Your task to perform on an android device: toggle priority inbox in the gmail app Image 0: 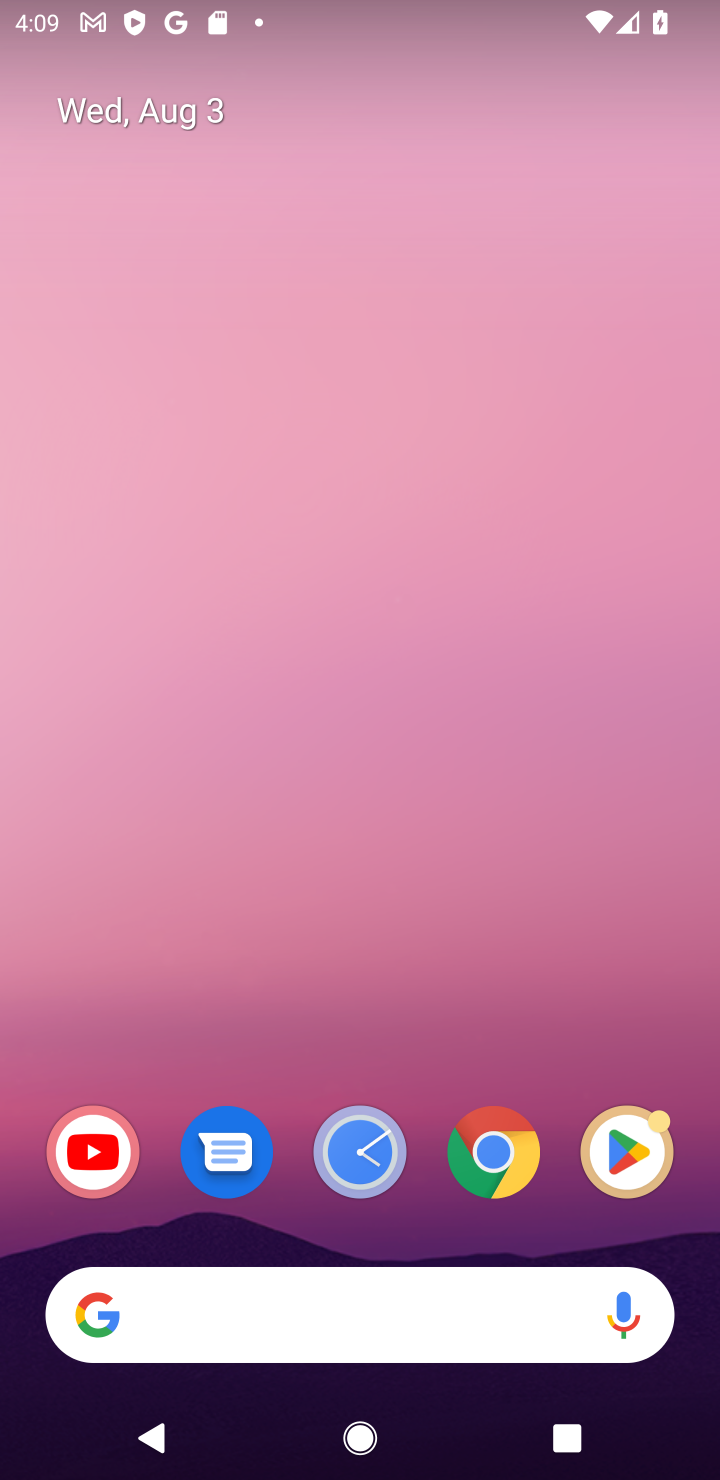
Step 0: drag from (307, 1297) to (393, 385)
Your task to perform on an android device: toggle priority inbox in the gmail app Image 1: 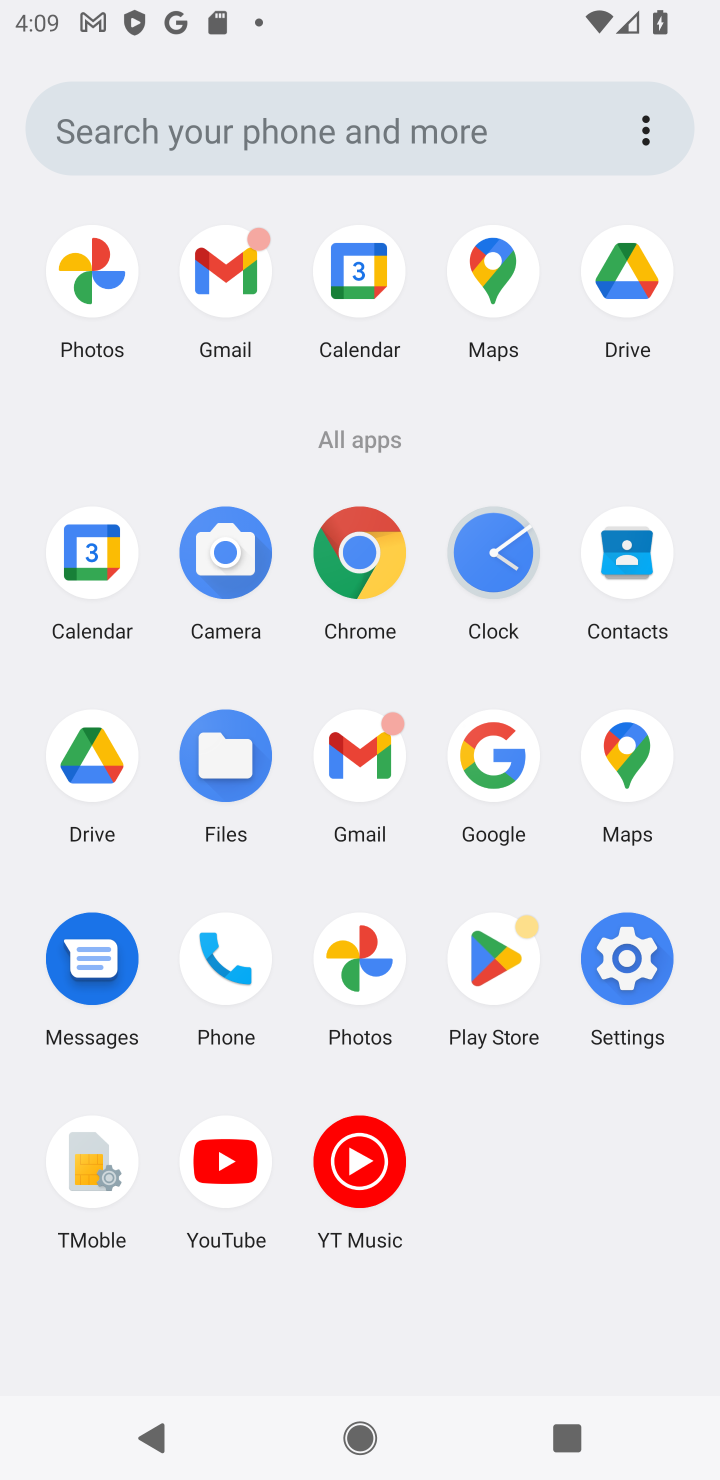
Step 1: click (329, 775)
Your task to perform on an android device: toggle priority inbox in the gmail app Image 2: 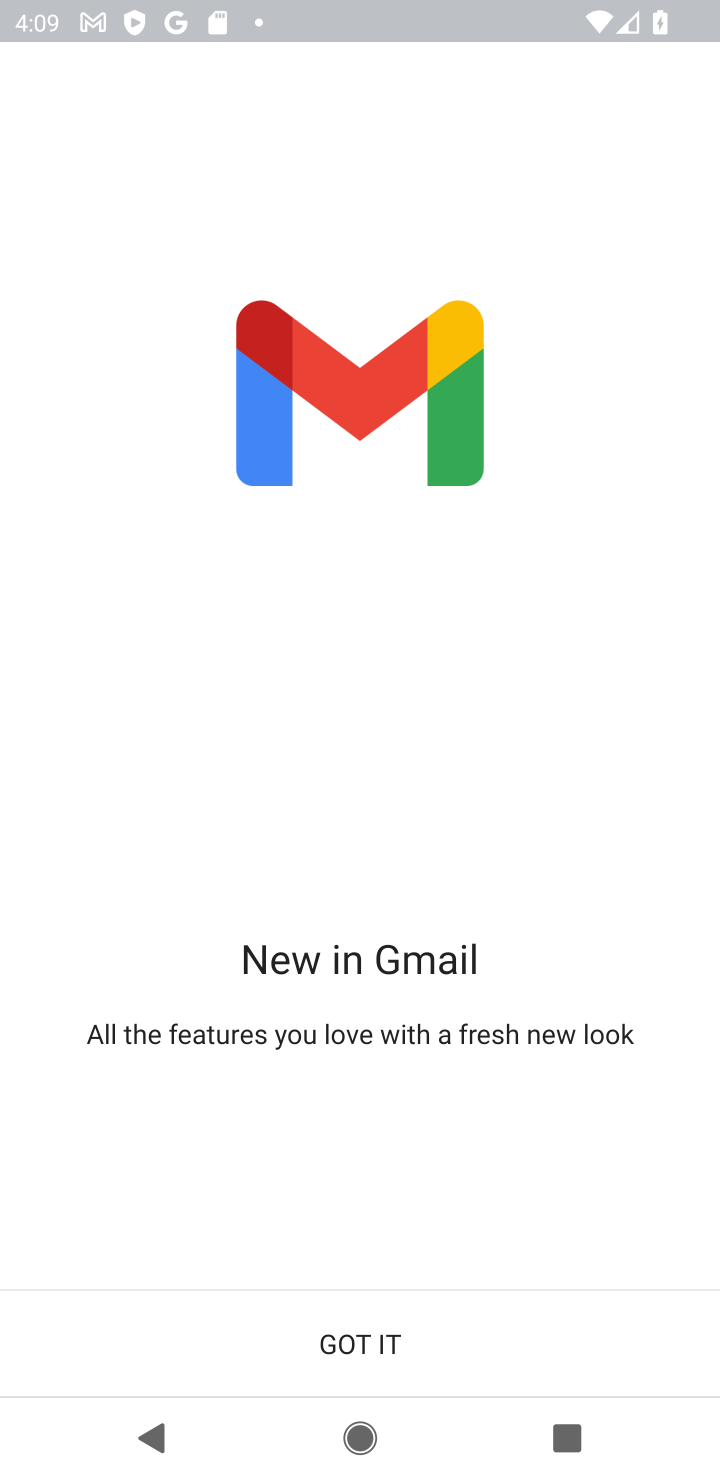
Step 2: click (372, 1348)
Your task to perform on an android device: toggle priority inbox in the gmail app Image 3: 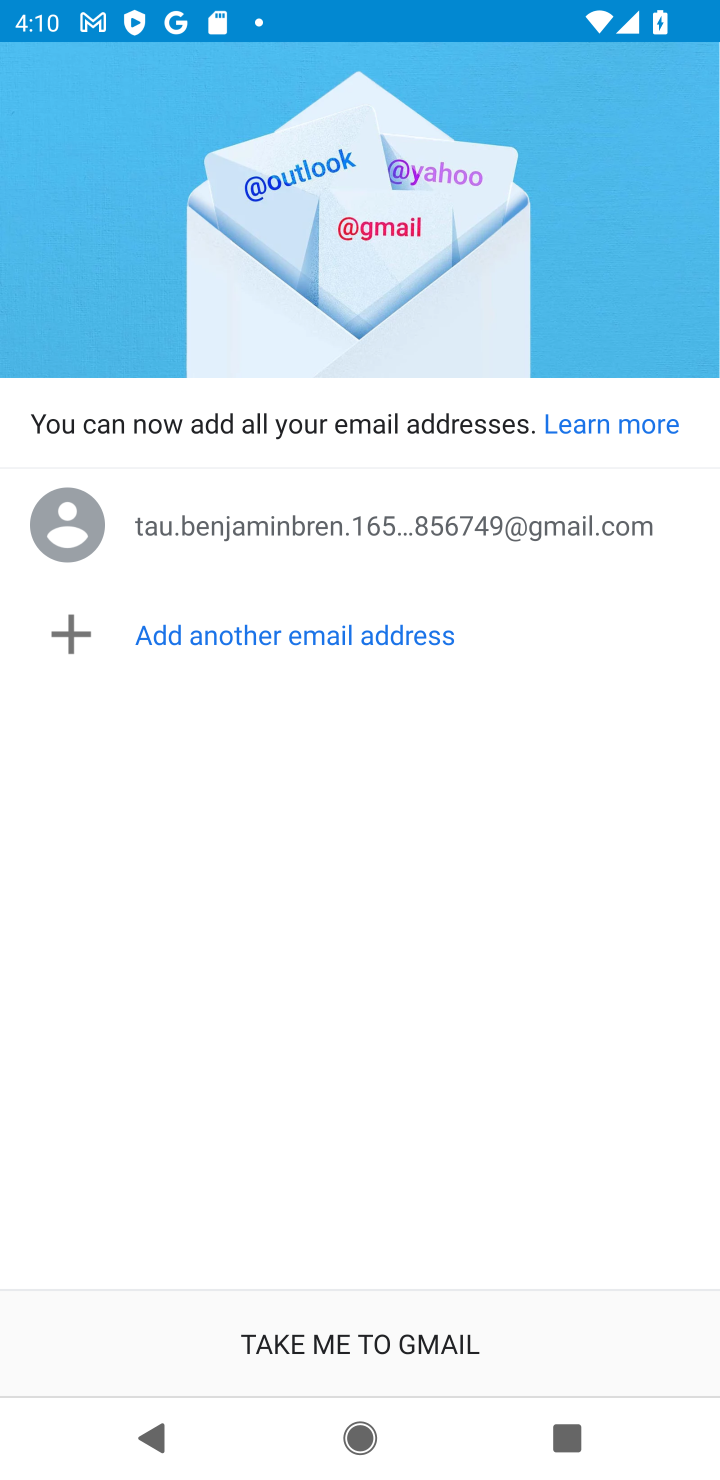
Step 3: press home button
Your task to perform on an android device: toggle priority inbox in the gmail app Image 4: 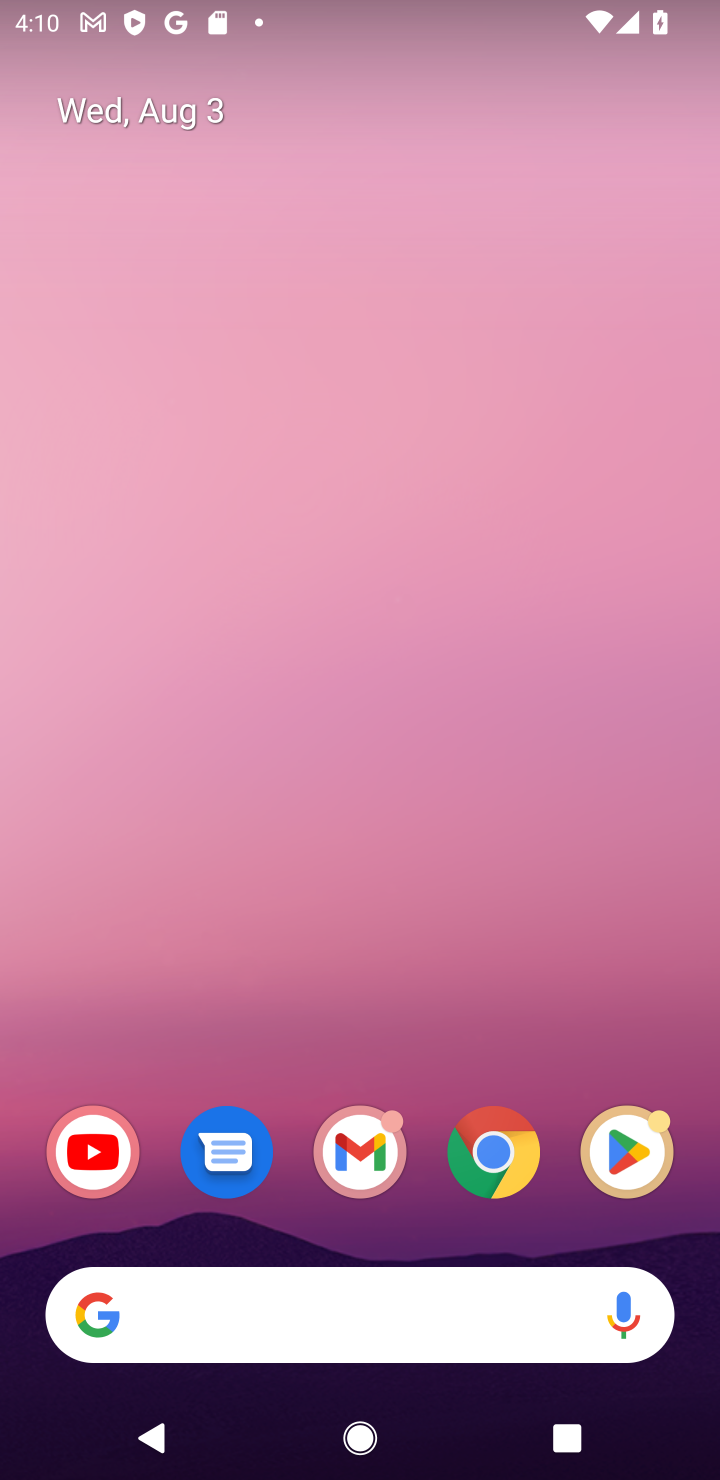
Step 4: click (360, 1184)
Your task to perform on an android device: toggle priority inbox in the gmail app Image 5: 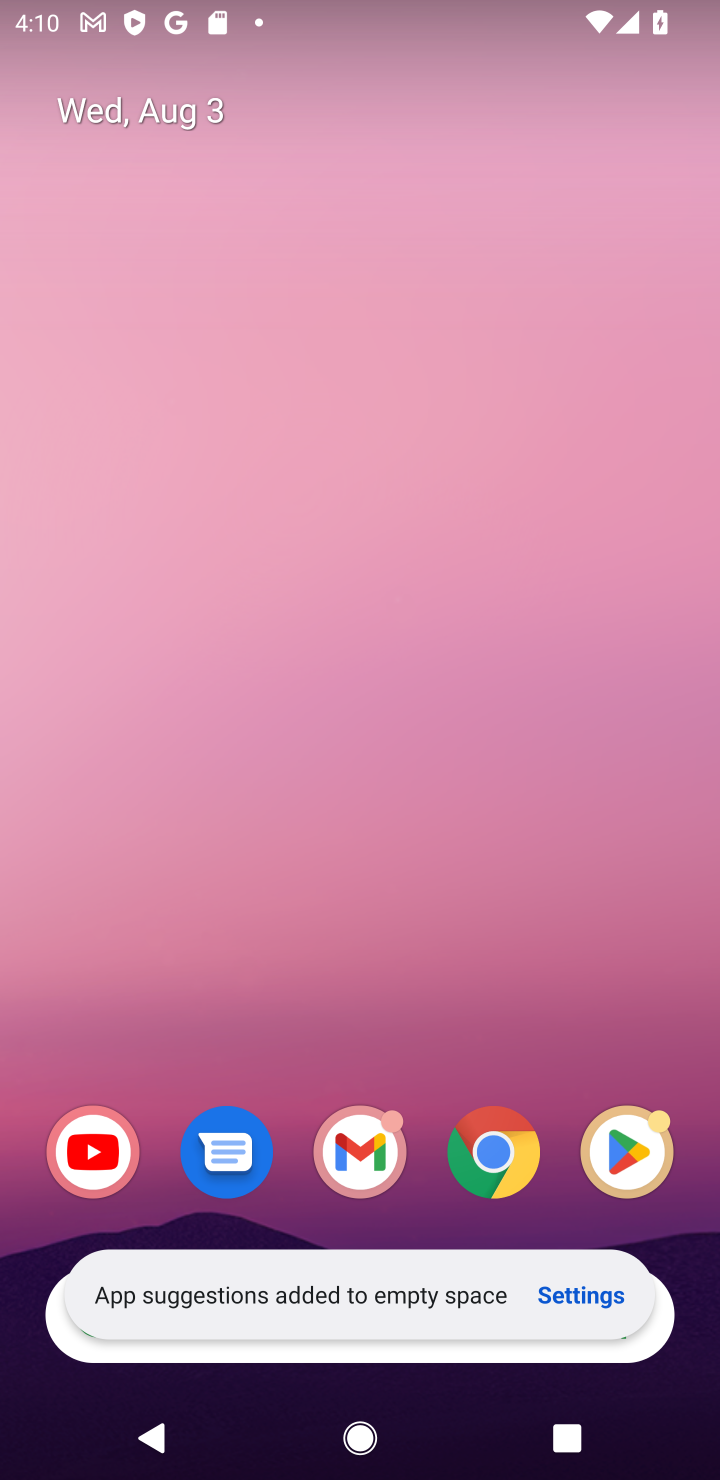
Step 5: click (360, 1184)
Your task to perform on an android device: toggle priority inbox in the gmail app Image 6: 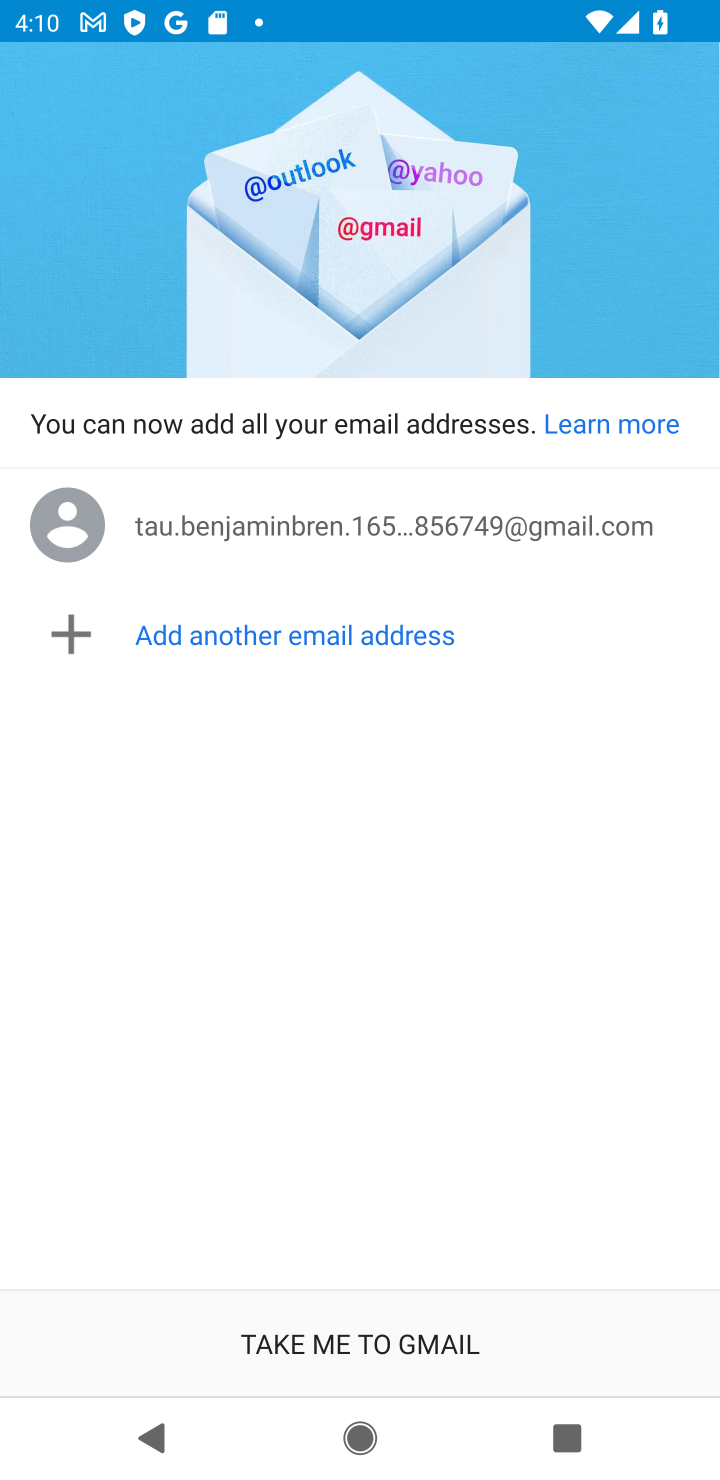
Step 6: drag from (328, 1350) to (399, 1350)
Your task to perform on an android device: toggle priority inbox in the gmail app Image 7: 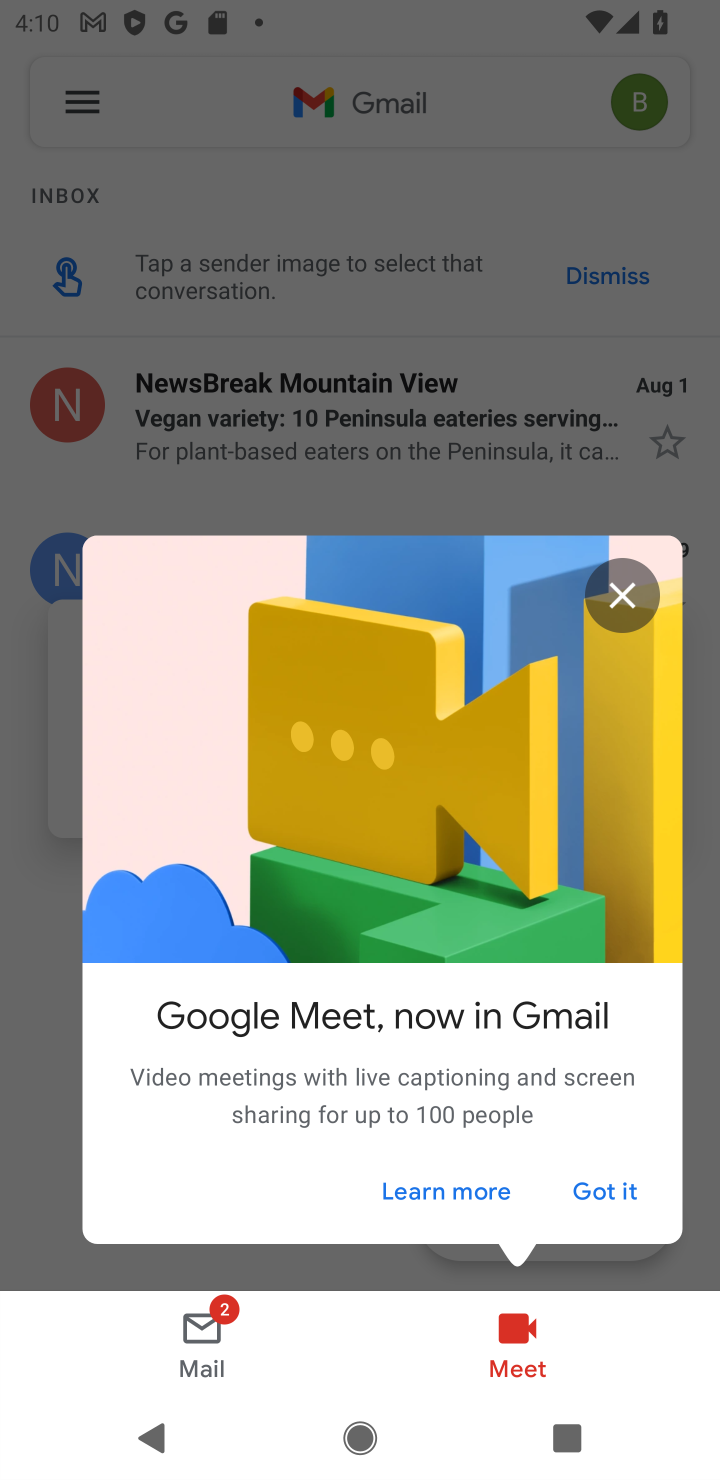
Step 7: click (637, 587)
Your task to perform on an android device: toggle priority inbox in the gmail app Image 8: 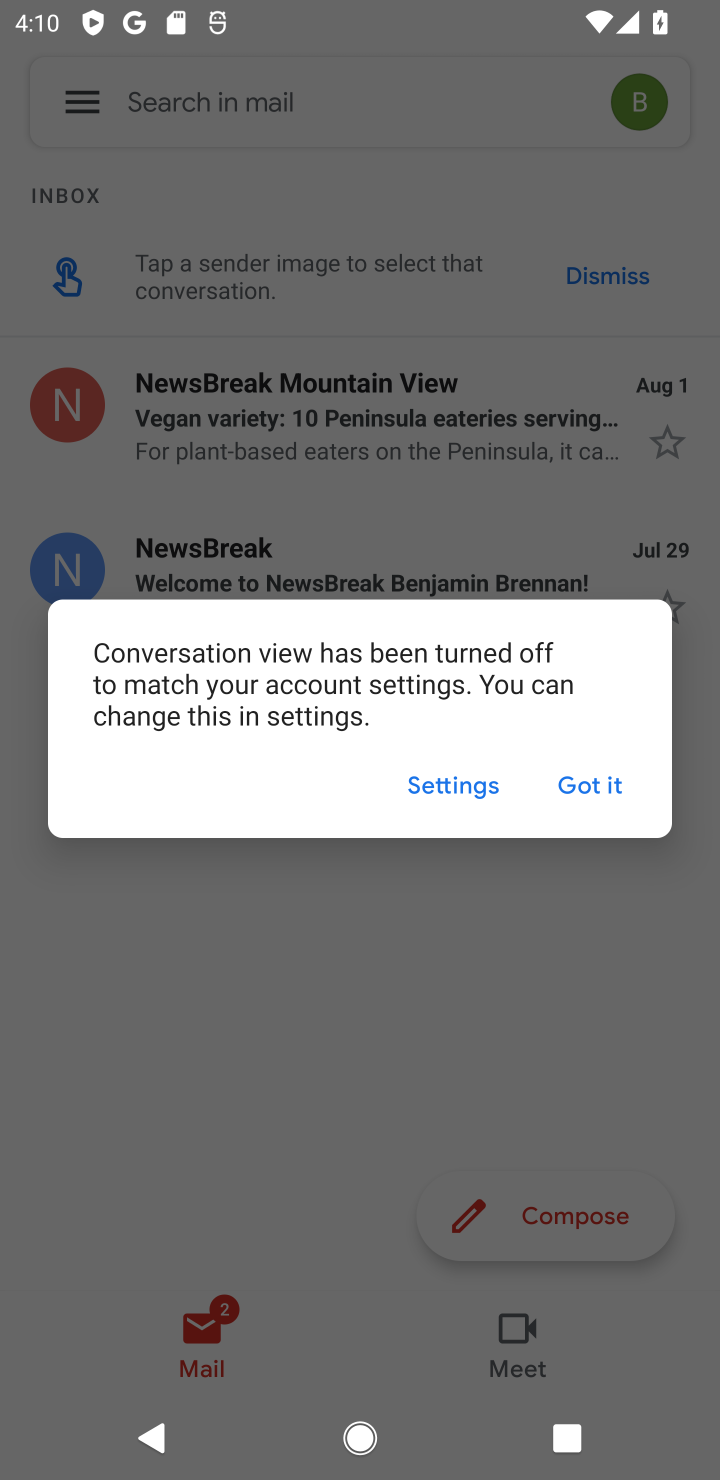
Step 8: click (599, 790)
Your task to perform on an android device: toggle priority inbox in the gmail app Image 9: 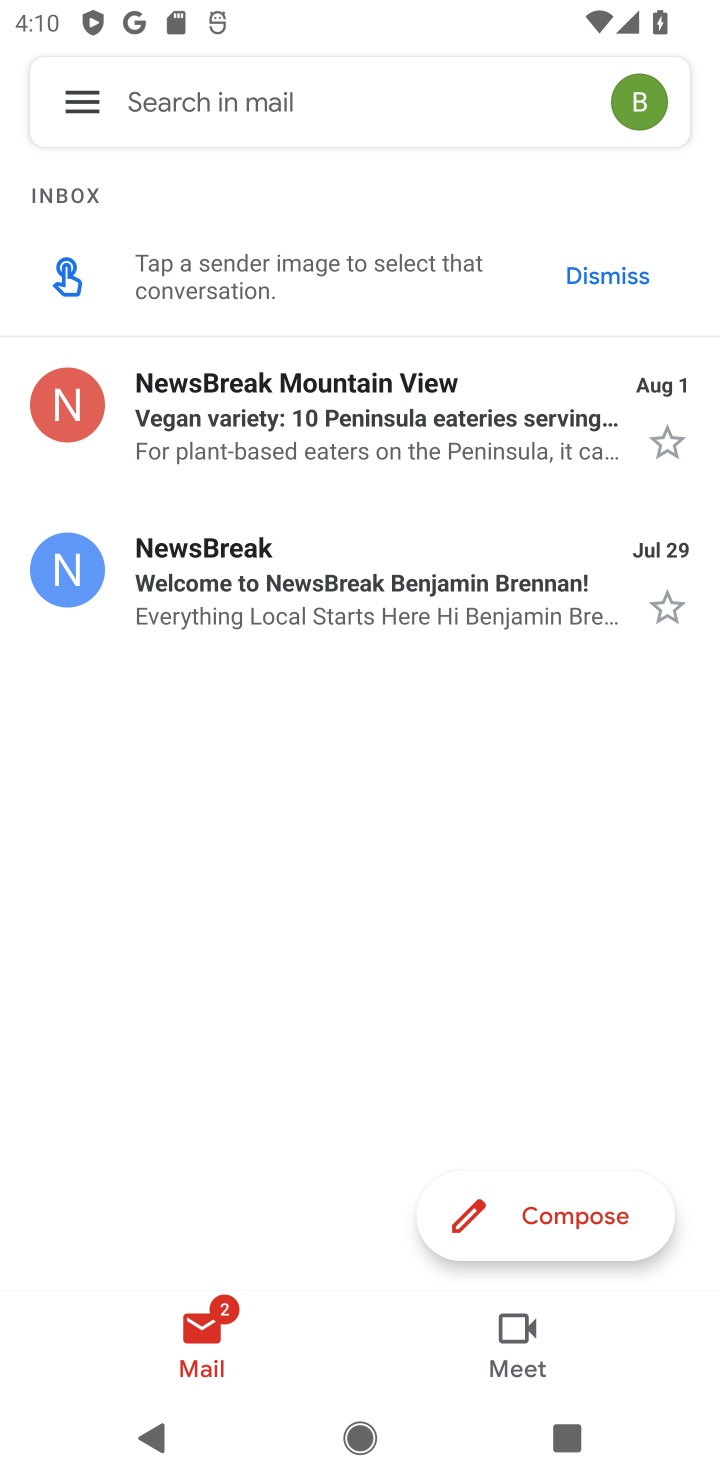
Step 9: click (101, 104)
Your task to perform on an android device: toggle priority inbox in the gmail app Image 10: 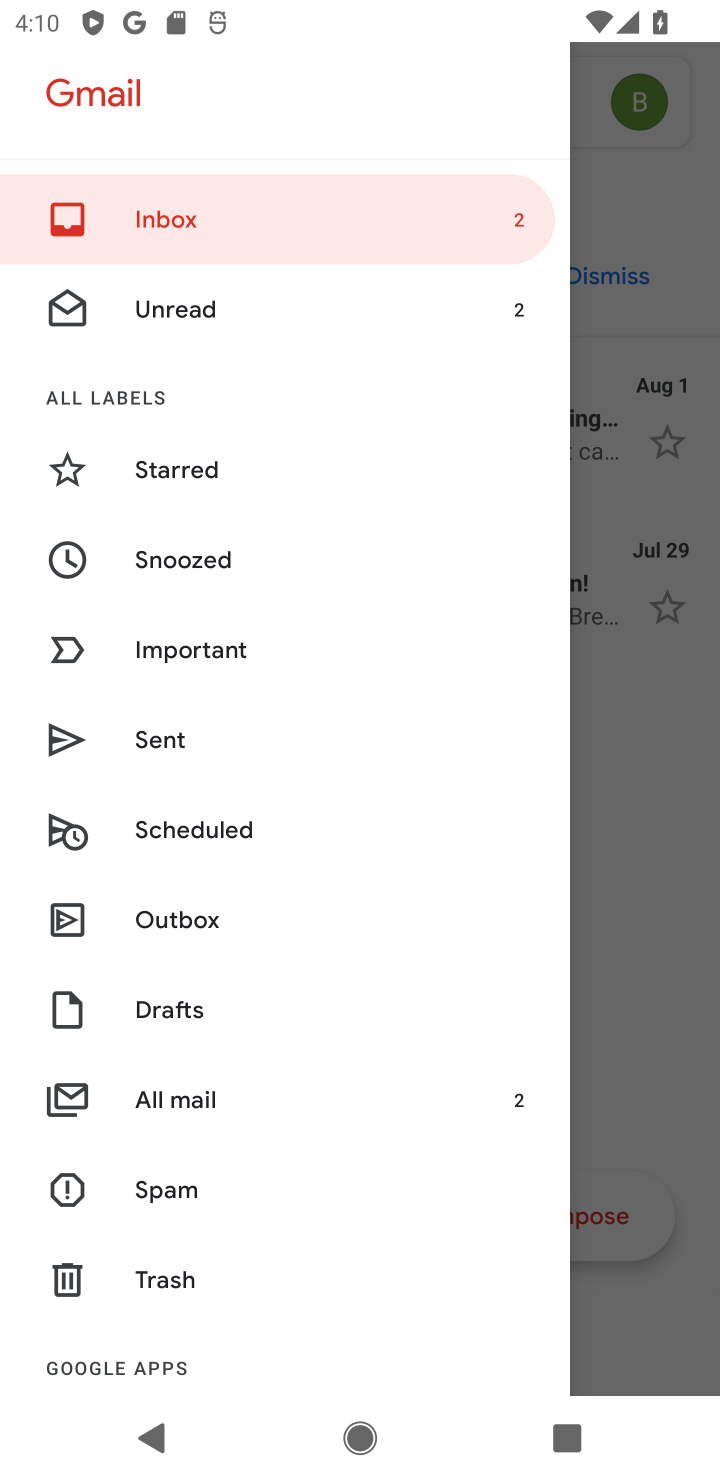
Step 10: drag from (223, 1238) to (200, 764)
Your task to perform on an android device: toggle priority inbox in the gmail app Image 11: 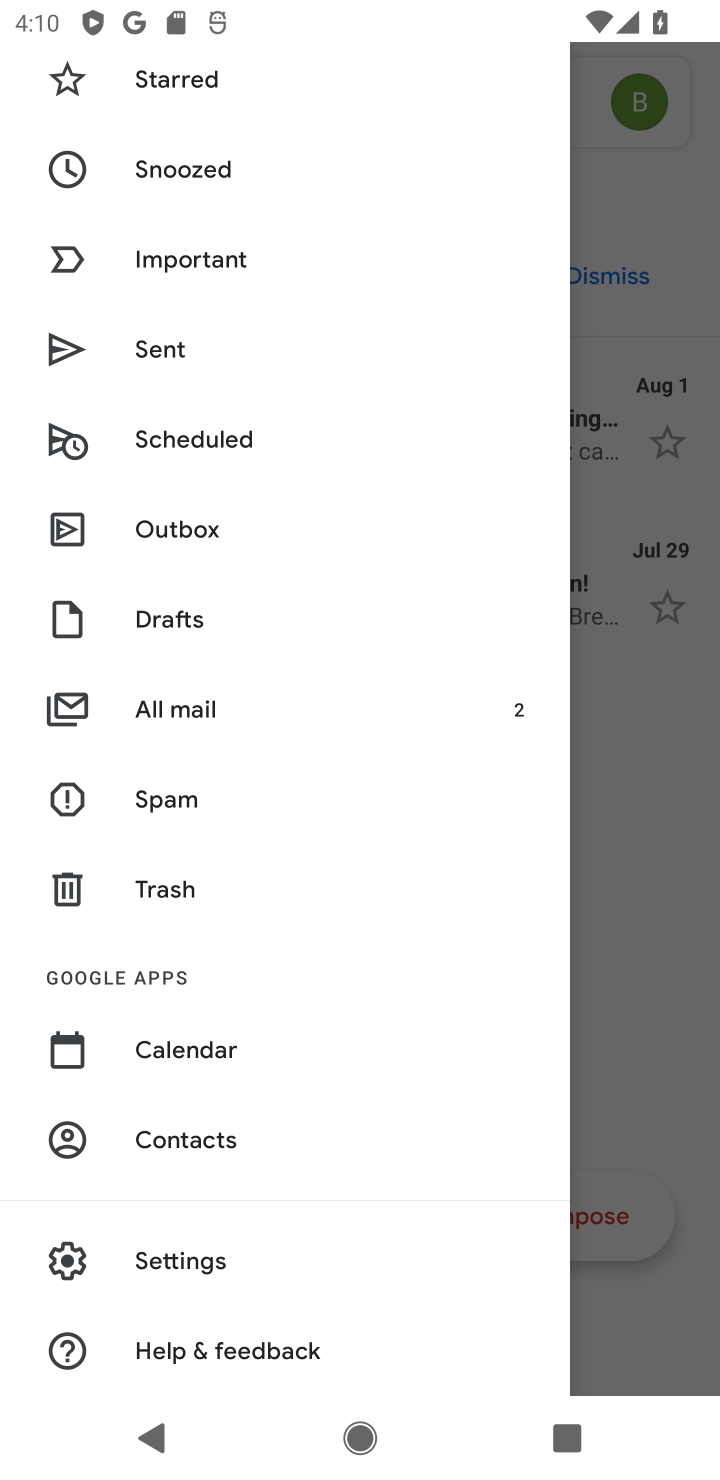
Step 11: click (183, 1269)
Your task to perform on an android device: toggle priority inbox in the gmail app Image 12: 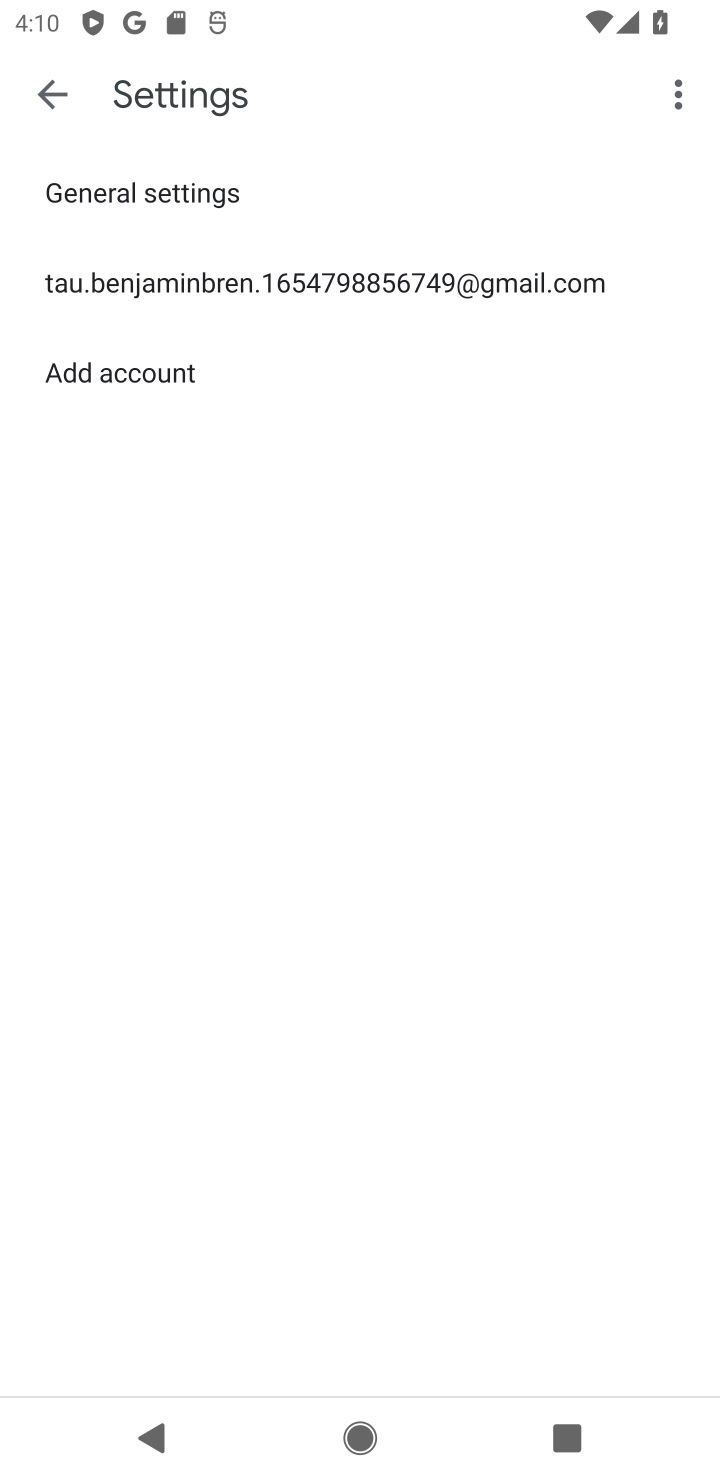
Step 12: click (216, 289)
Your task to perform on an android device: toggle priority inbox in the gmail app Image 13: 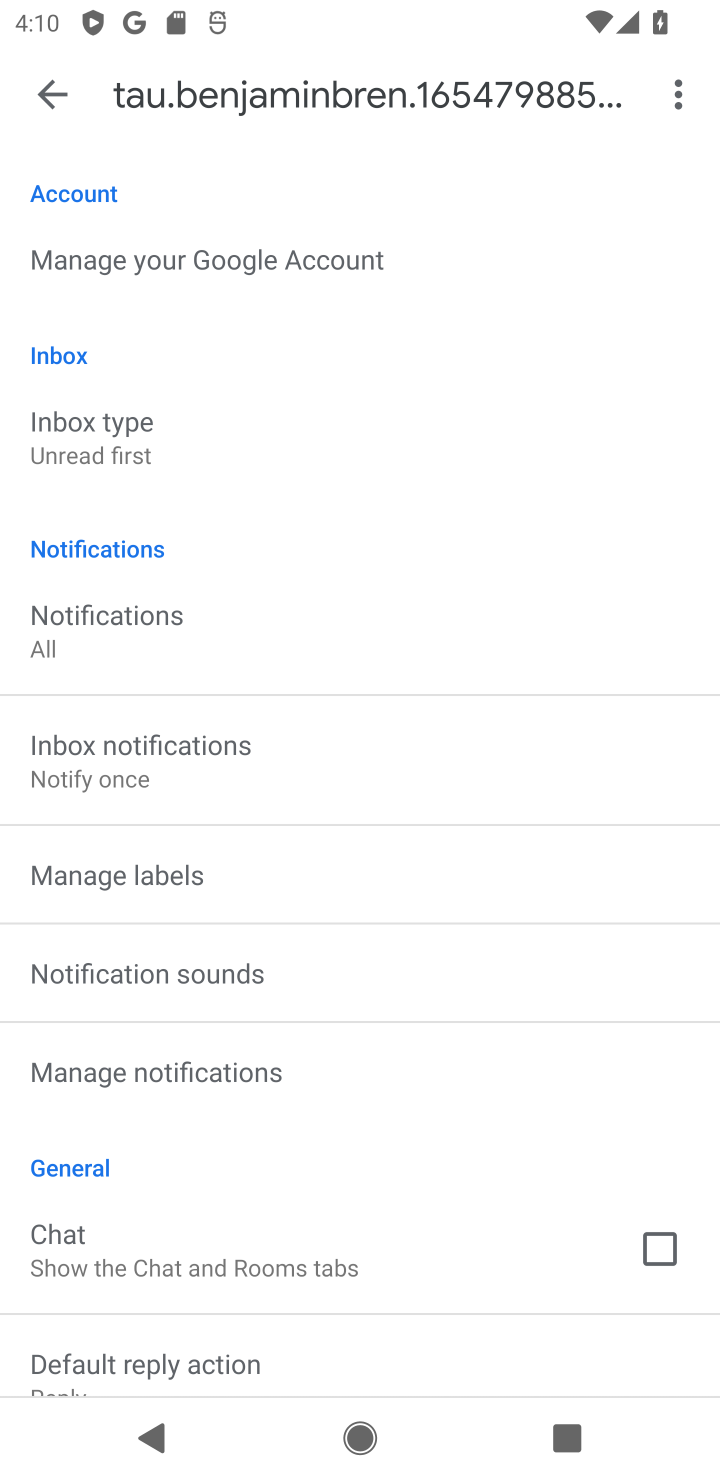
Step 13: click (101, 446)
Your task to perform on an android device: toggle priority inbox in the gmail app Image 14: 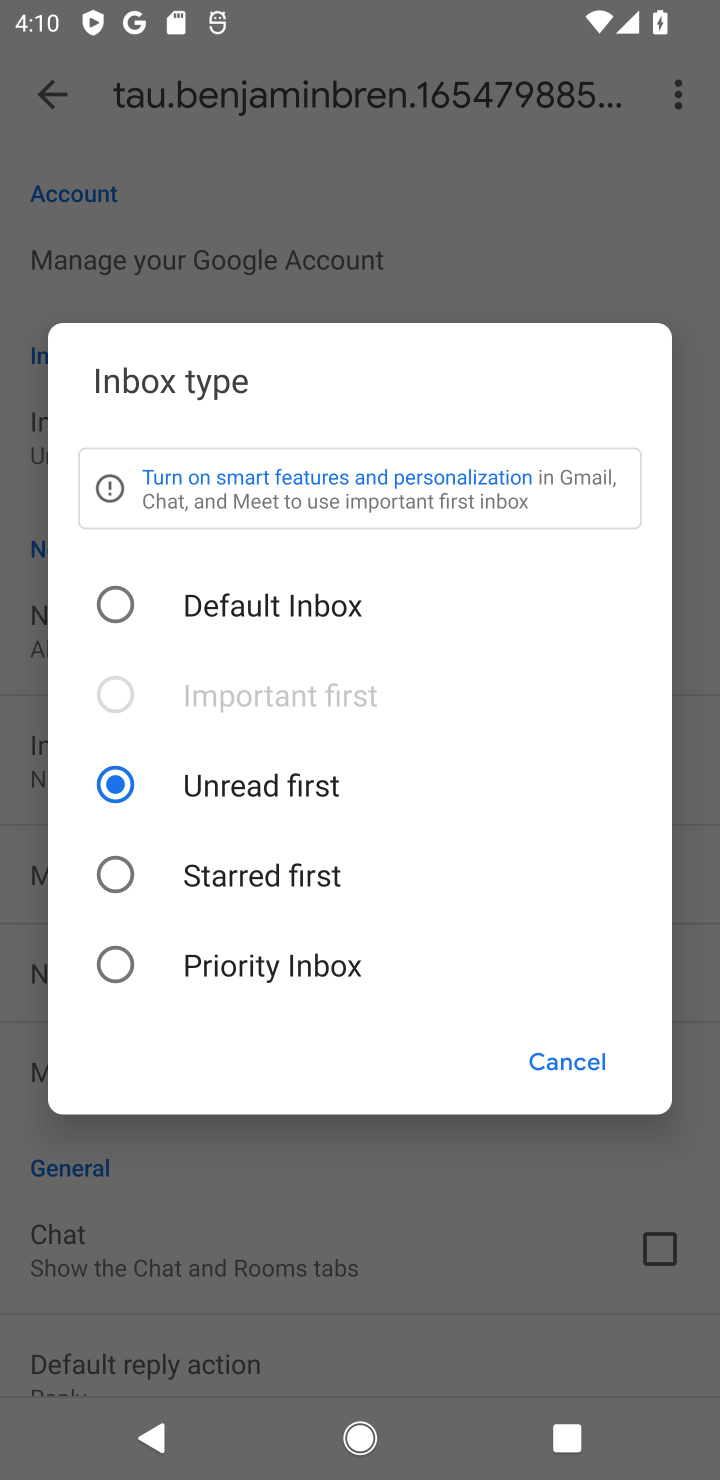
Step 14: click (217, 967)
Your task to perform on an android device: toggle priority inbox in the gmail app Image 15: 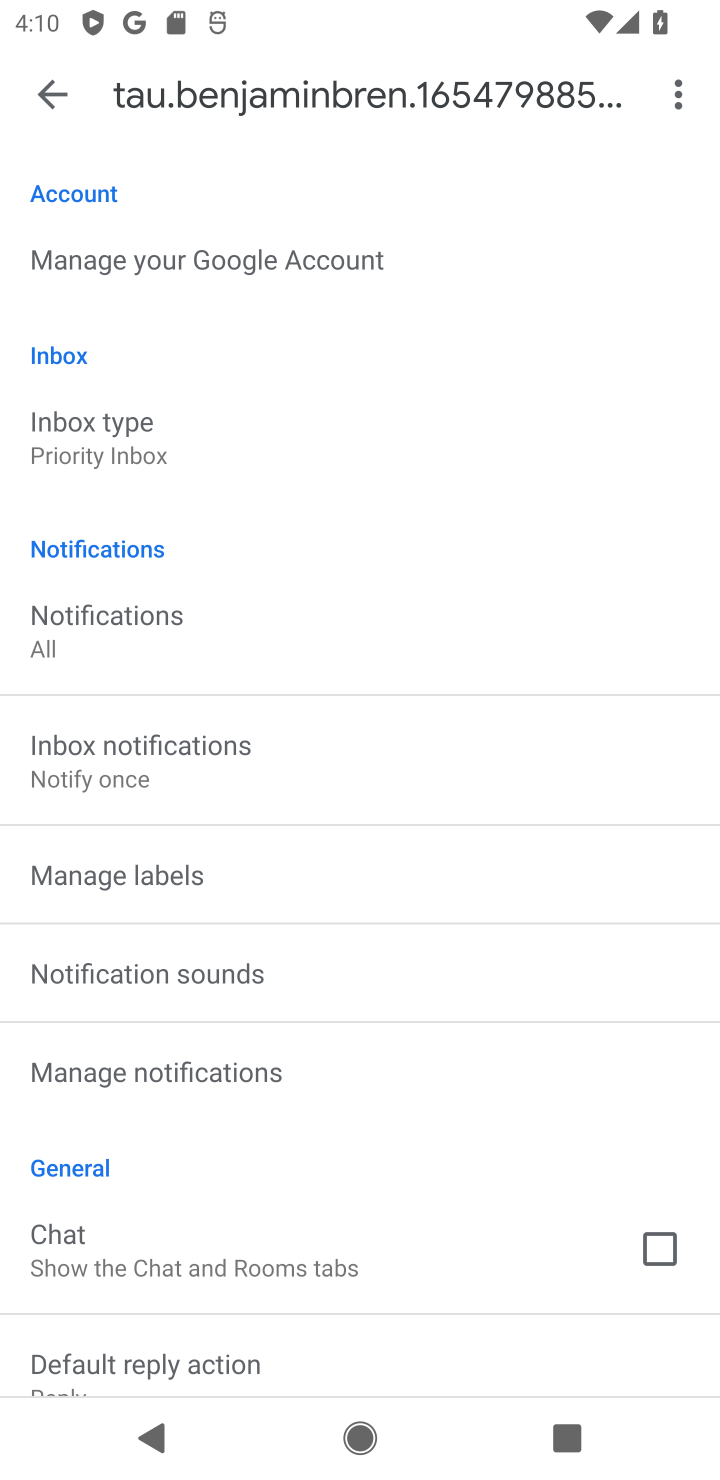
Step 15: task complete